Your task to perform on an android device: Go to Yahoo.com Image 0: 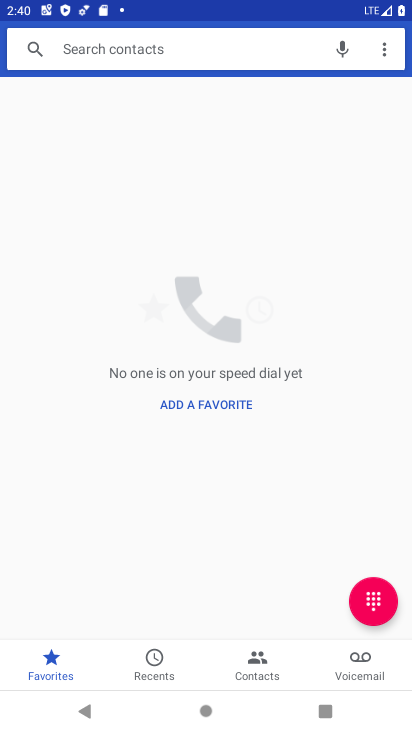
Step 0: press home button
Your task to perform on an android device: Go to Yahoo.com Image 1: 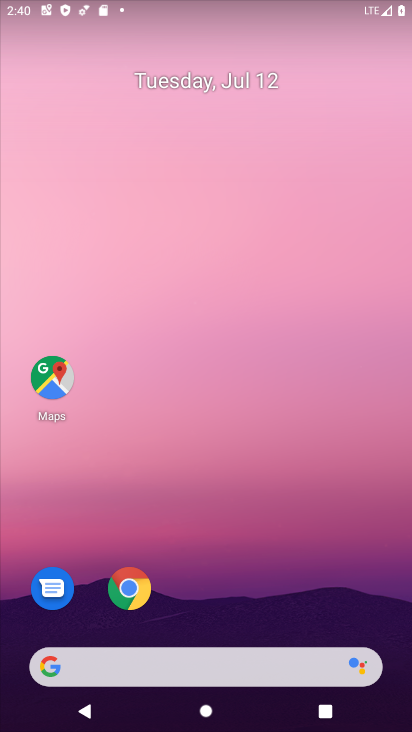
Step 1: click (191, 670)
Your task to perform on an android device: Go to Yahoo.com Image 2: 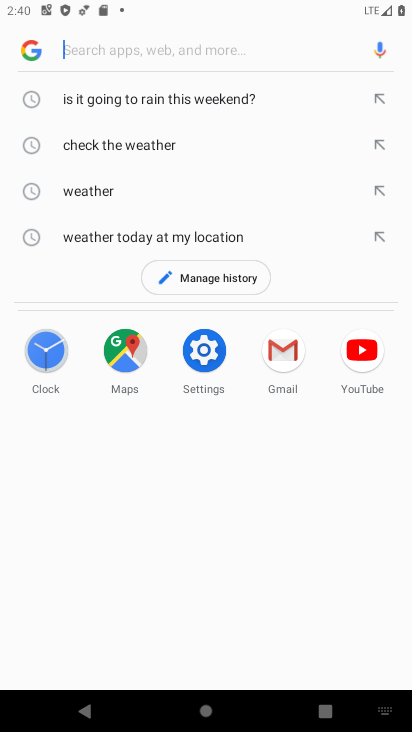
Step 2: type "yahoo.com"
Your task to perform on an android device: Go to Yahoo.com Image 3: 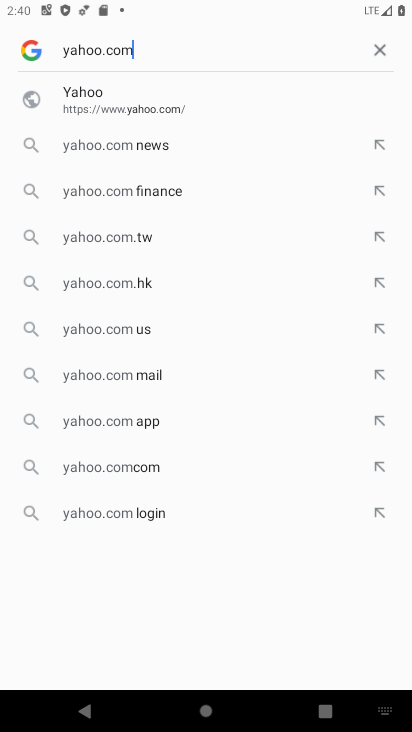
Step 3: click (173, 91)
Your task to perform on an android device: Go to Yahoo.com Image 4: 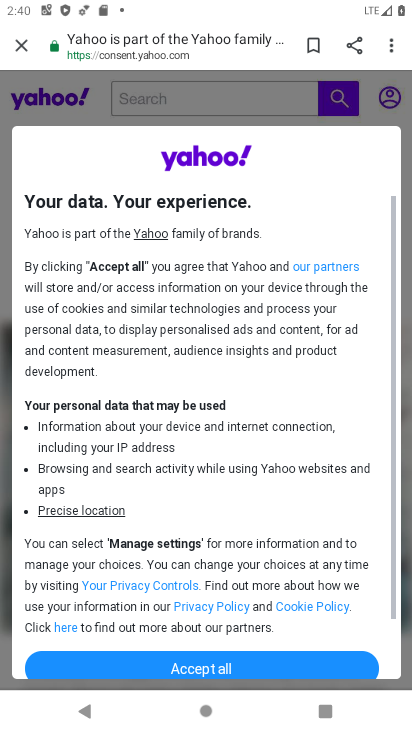
Step 4: task complete